Your task to perform on an android device: turn on airplane mode Image 0: 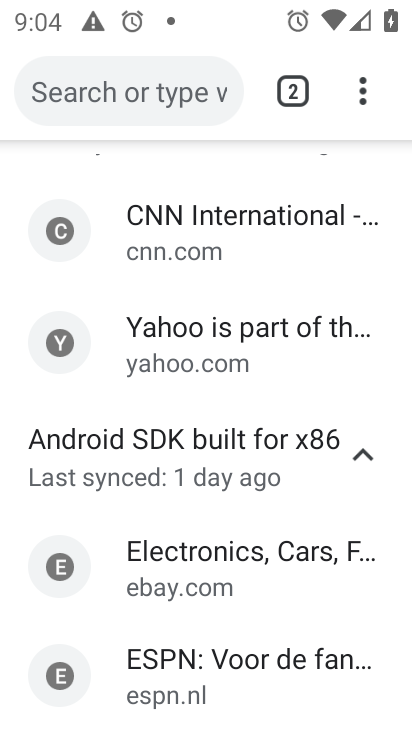
Step 0: press home button
Your task to perform on an android device: turn on airplane mode Image 1: 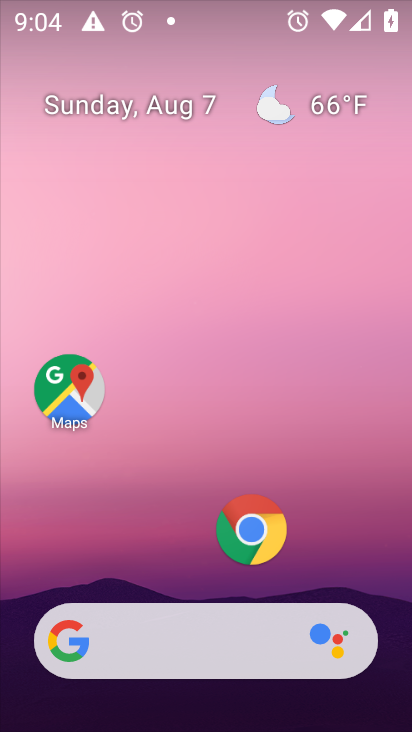
Step 1: drag from (173, 583) to (168, 40)
Your task to perform on an android device: turn on airplane mode Image 2: 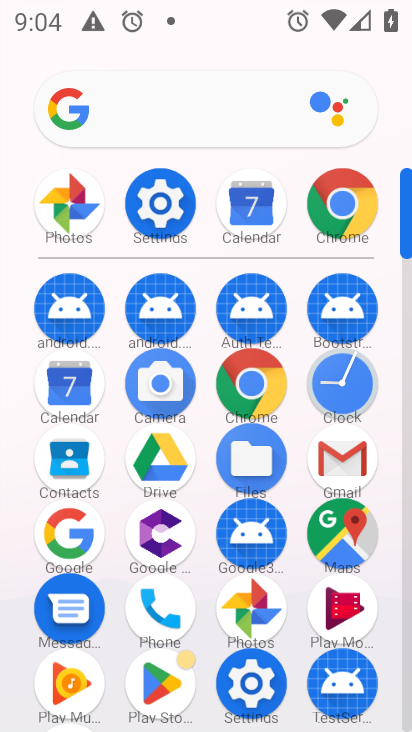
Step 2: click (170, 229)
Your task to perform on an android device: turn on airplane mode Image 3: 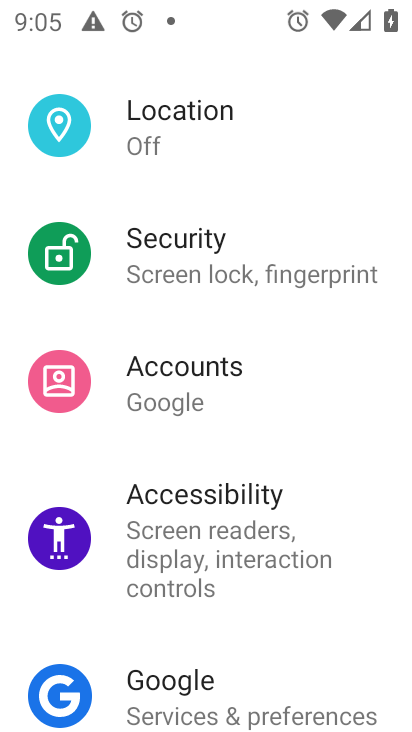
Step 3: drag from (195, 228) to (200, 612)
Your task to perform on an android device: turn on airplane mode Image 4: 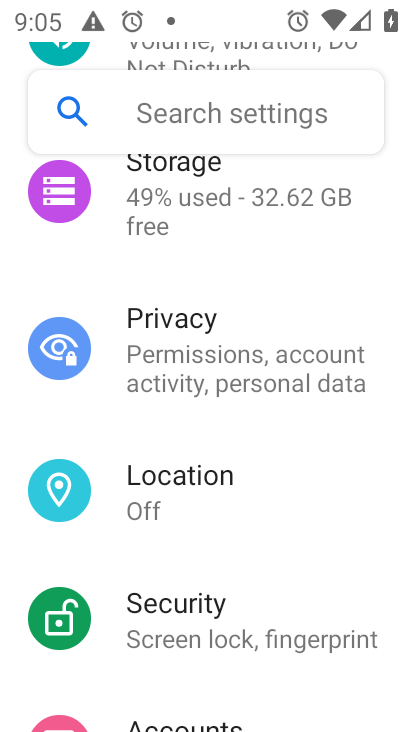
Step 4: drag from (222, 249) to (212, 576)
Your task to perform on an android device: turn on airplane mode Image 5: 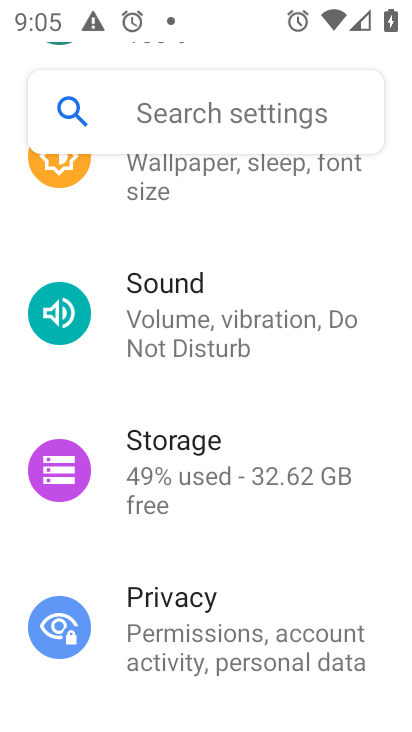
Step 5: drag from (202, 409) to (177, 727)
Your task to perform on an android device: turn on airplane mode Image 6: 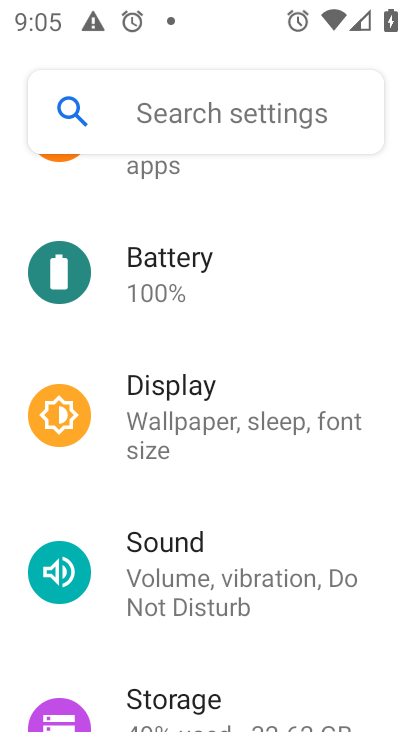
Step 6: drag from (229, 260) to (181, 650)
Your task to perform on an android device: turn on airplane mode Image 7: 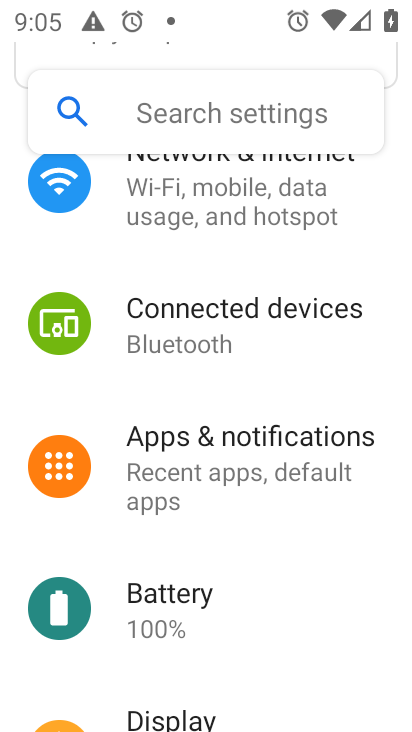
Step 7: drag from (233, 211) to (250, 497)
Your task to perform on an android device: turn on airplane mode Image 8: 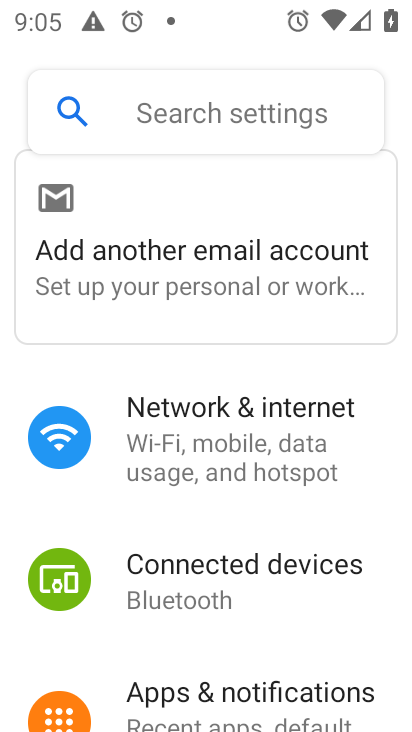
Step 8: click (204, 457)
Your task to perform on an android device: turn on airplane mode Image 9: 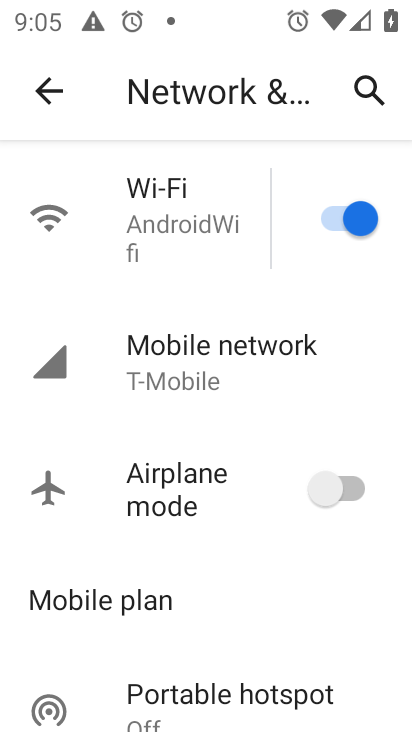
Step 9: click (368, 479)
Your task to perform on an android device: turn on airplane mode Image 10: 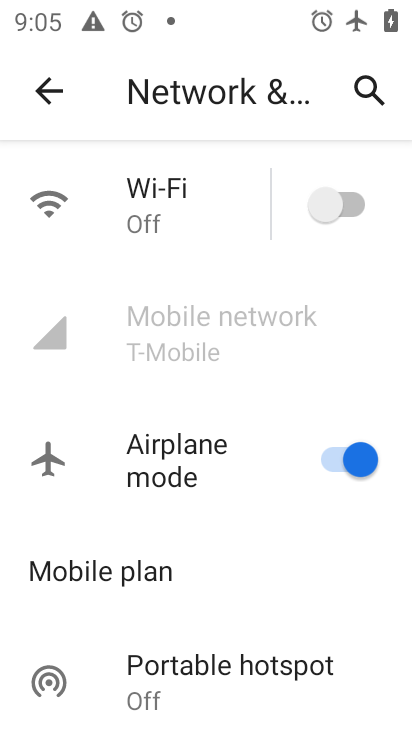
Step 10: task complete